Your task to perform on an android device: search for starred emails in the gmail app Image 0: 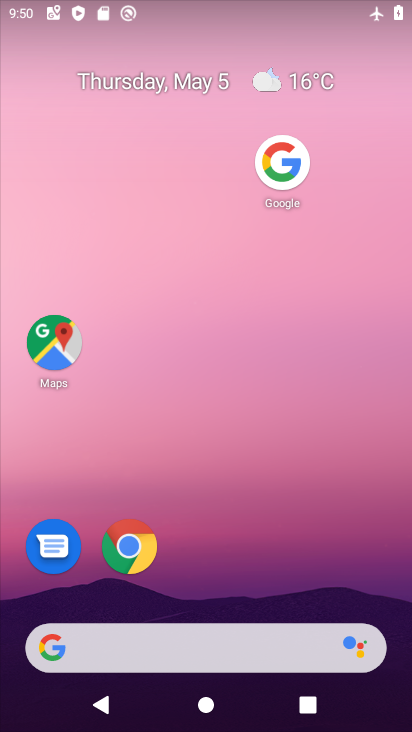
Step 0: drag from (162, 651) to (317, 158)
Your task to perform on an android device: search for starred emails in the gmail app Image 1: 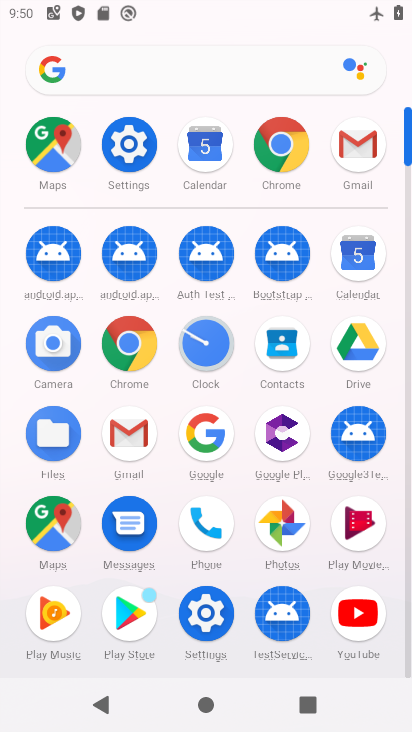
Step 1: click (358, 163)
Your task to perform on an android device: search for starred emails in the gmail app Image 2: 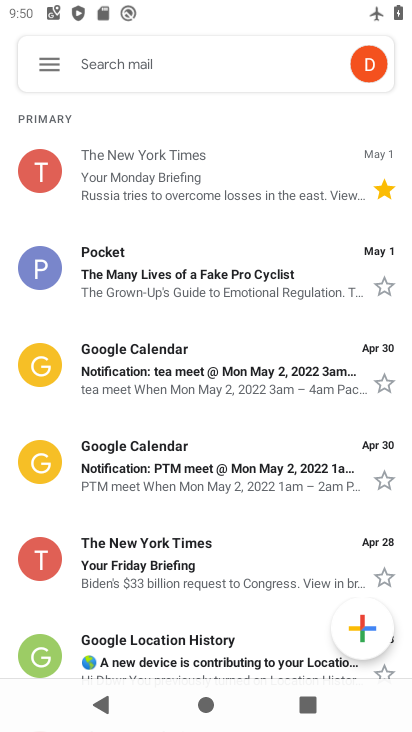
Step 2: click (51, 65)
Your task to perform on an android device: search for starred emails in the gmail app Image 3: 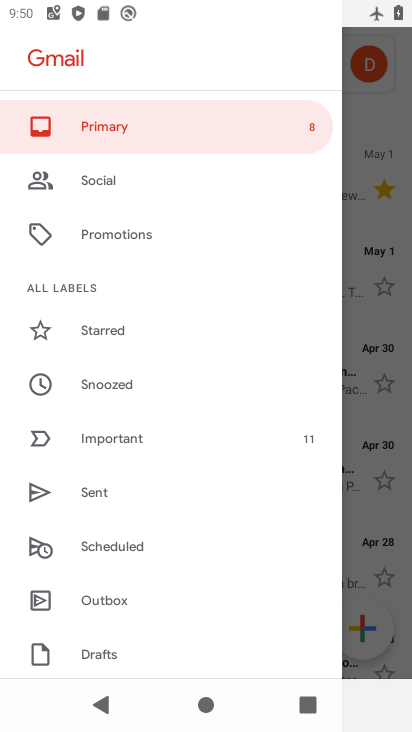
Step 3: click (113, 327)
Your task to perform on an android device: search for starred emails in the gmail app Image 4: 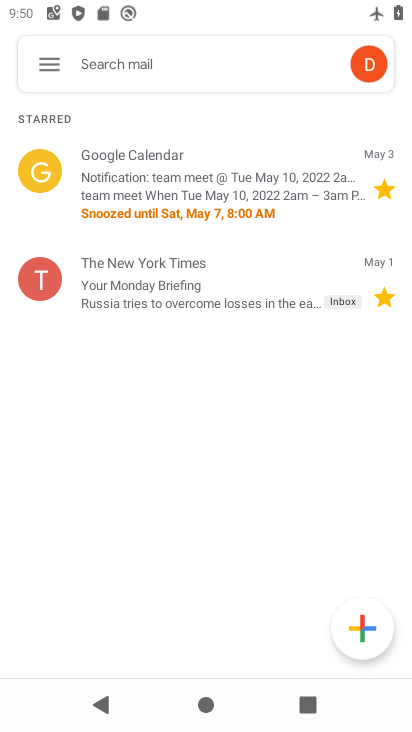
Step 4: task complete